Your task to perform on an android device: Open location settings Image 0: 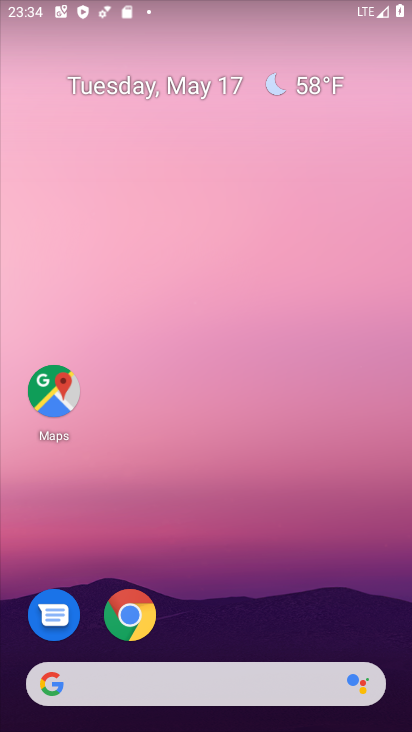
Step 0: drag from (256, 622) to (231, 196)
Your task to perform on an android device: Open location settings Image 1: 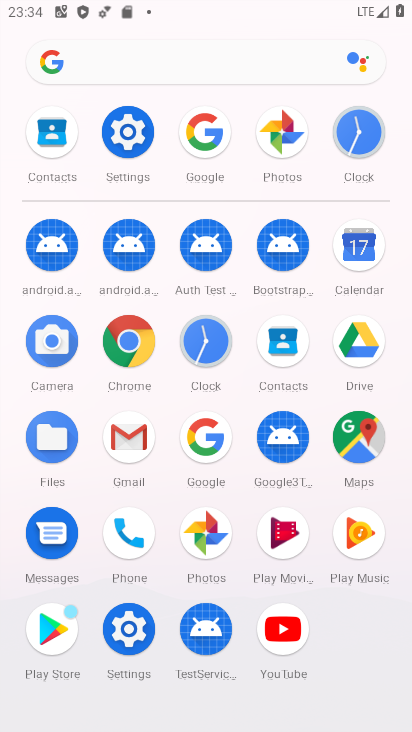
Step 1: click (130, 143)
Your task to perform on an android device: Open location settings Image 2: 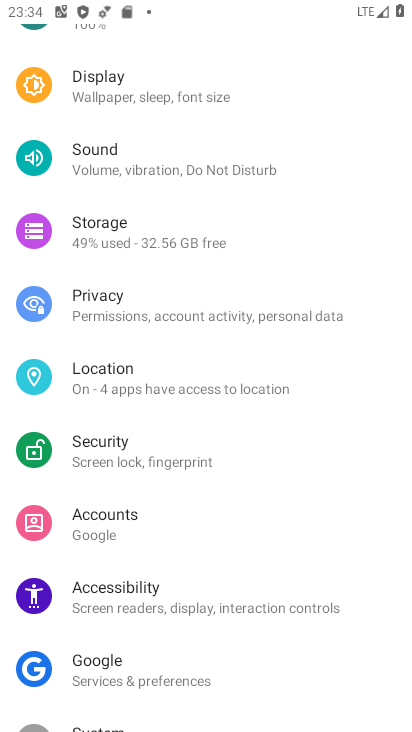
Step 2: drag from (183, 641) to (184, 446)
Your task to perform on an android device: Open location settings Image 3: 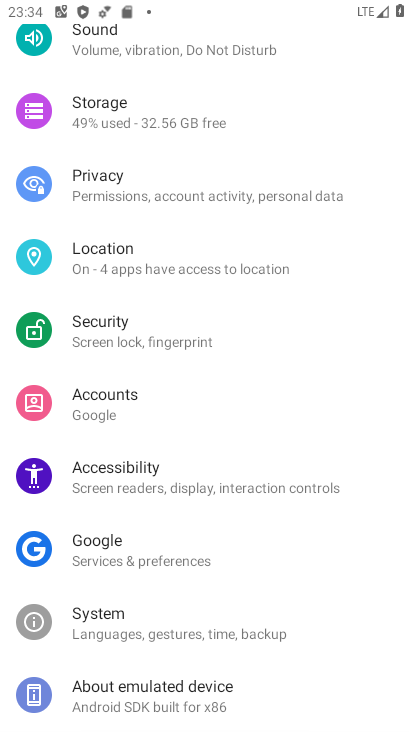
Step 3: click (155, 254)
Your task to perform on an android device: Open location settings Image 4: 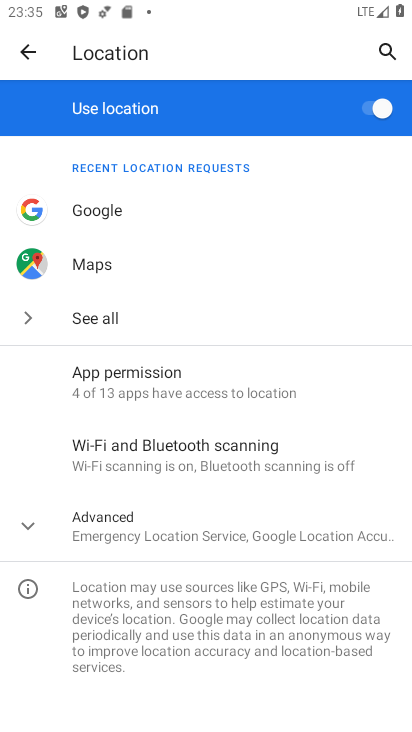
Step 4: task complete